Your task to perform on an android device: find which apps use the phone's location Image 0: 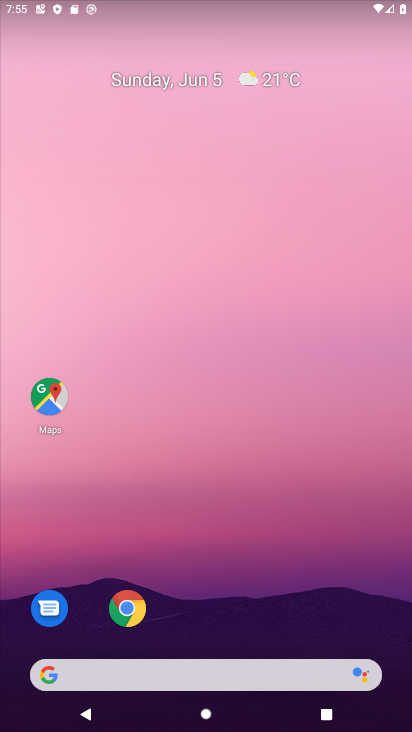
Step 0: drag from (289, 571) to (252, 242)
Your task to perform on an android device: find which apps use the phone's location Image 1: 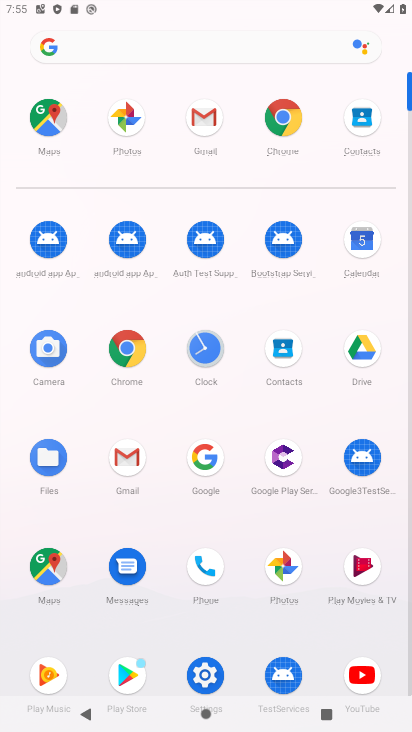
Step 1: click (193, 671)
Your task to perform on an android device: find which apps use the phone's location Image 2: 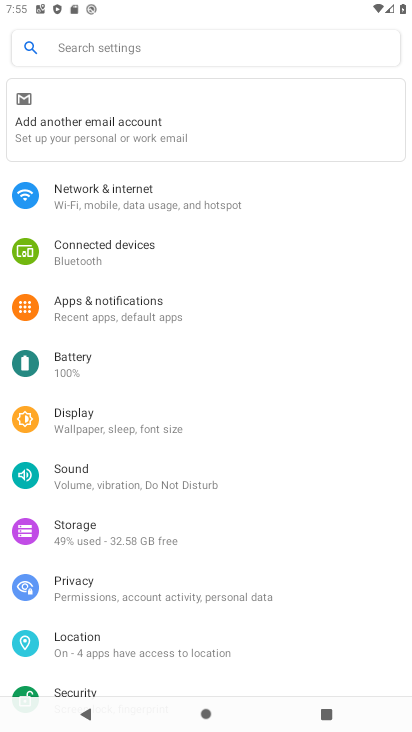
Step 2: click (136, 648)
Your task to perform on an android device: find which apps use the phone's location Image 3: 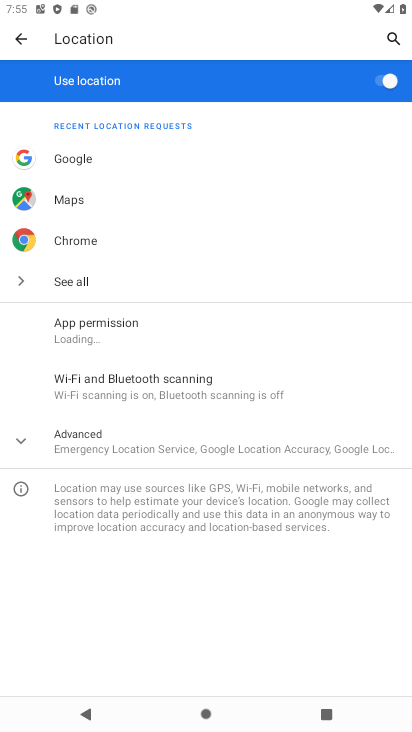
Step 3: task complete